Your task to perform on an android device: Go to eBay Image 0: 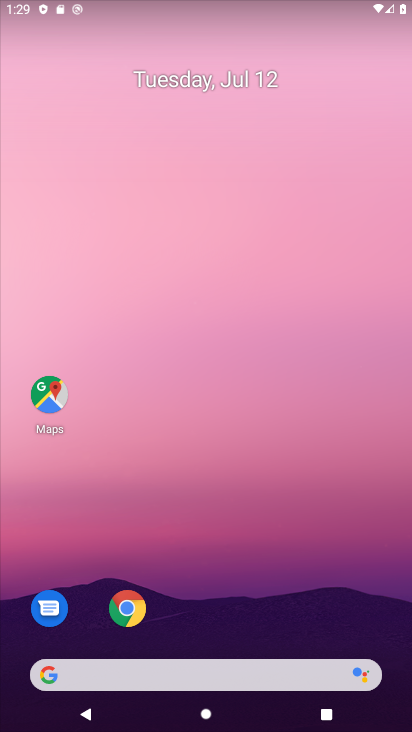
Step 0: click (125, 608)
Your task to perform on an android device: Go to eBay Image 1: 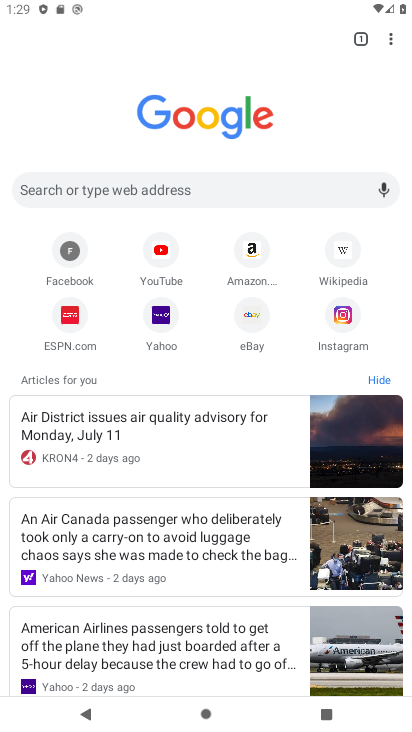
Step 1: click (253, 311)
Your task to perform on an android device: Go to eBay Image 2: 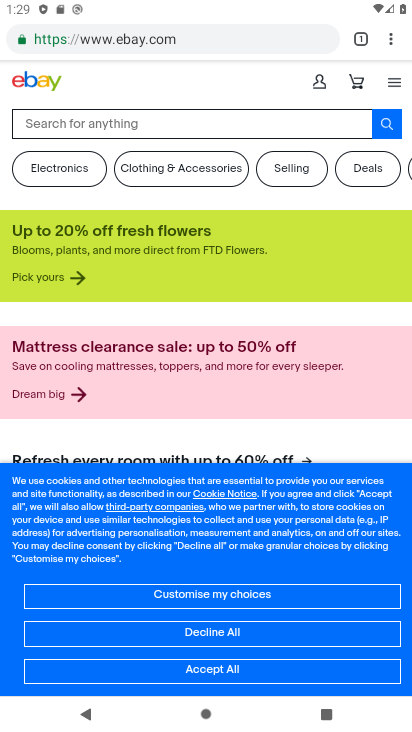
Step 2: task complete